Your task to perform on an android device: set default search engine in the chrome app Image 0: 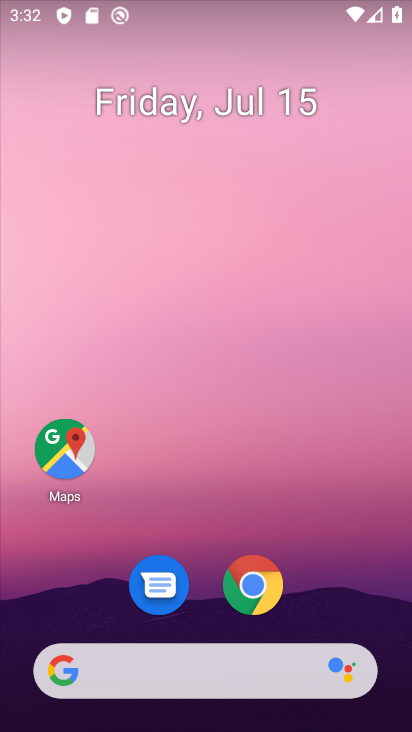
Step 0: click (260, 585)
Your task to perform on an android device: set default search engine in the chrome app Image 1: 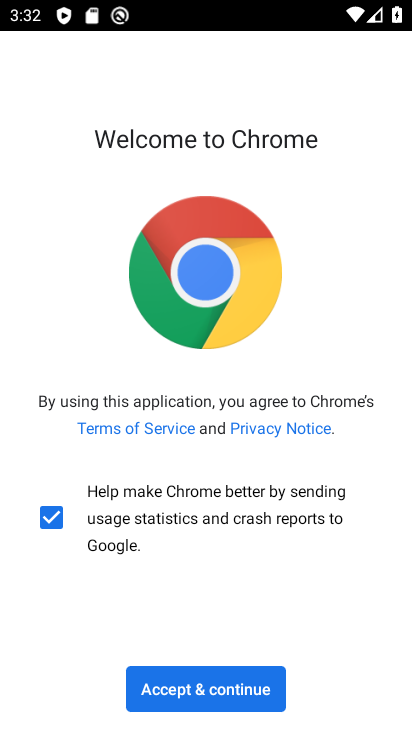
Step 1: click (242, 683)
Your task to perform on an android device: set default search engine in the chrome app Image 2: 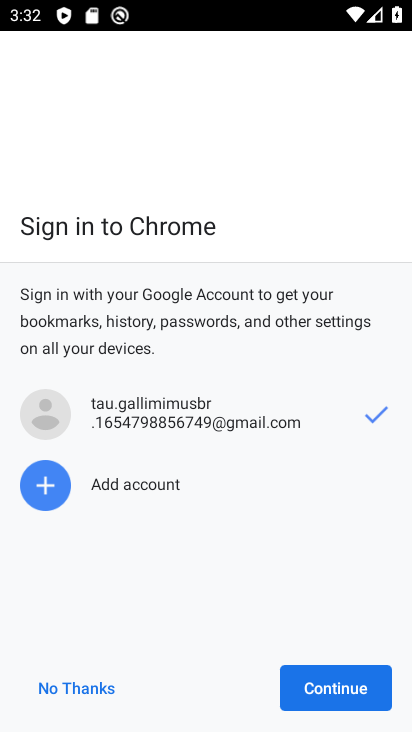
Step 2: click (319, 700)
Your task to perform on an android device: set default search engine in the chrome app Image 3: 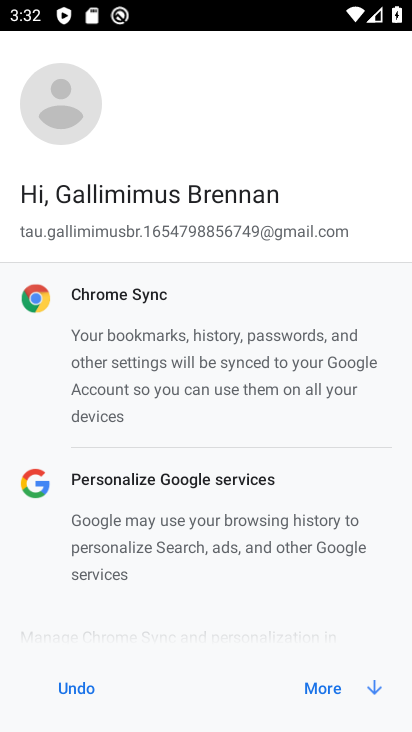
Step 3: click (325, 679)
Your task to perform on an android device: set default search engine in the chrome app Image 4: 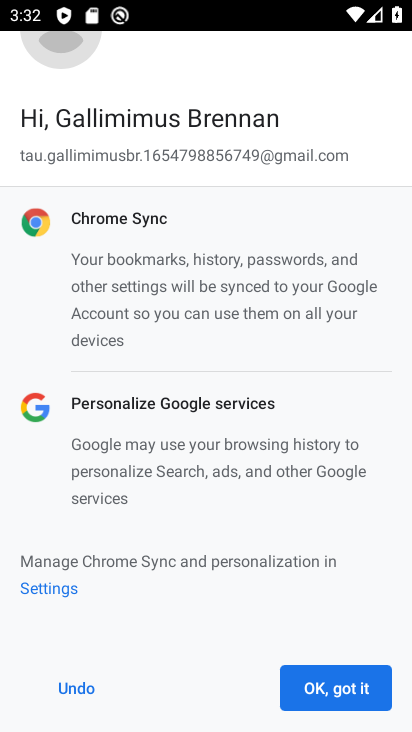
Step 4: click (325, 679)
Your task to perform on an android device: set default search engine in the chrome app Image 5: 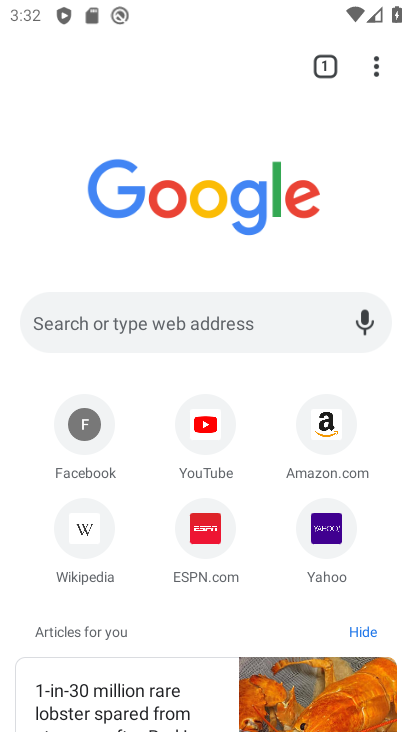
Step 5: click (374, 73)
Your task to perform on an android device: set default search engine in the chrome app Image 6: 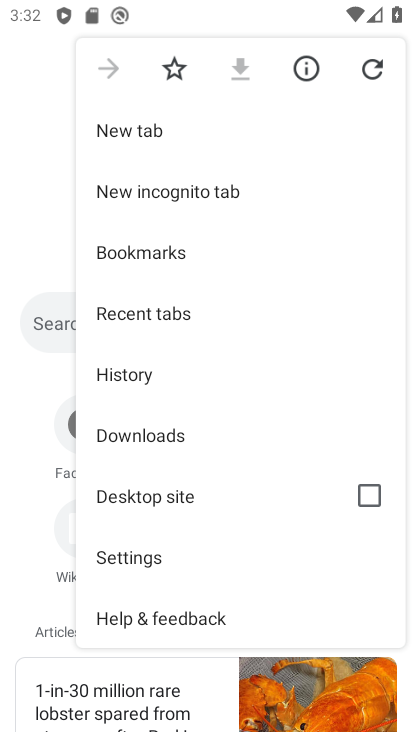
Step 6: click (142, 558)
Your task to perform on an android device: set default search engine in the chrome app Image 7: 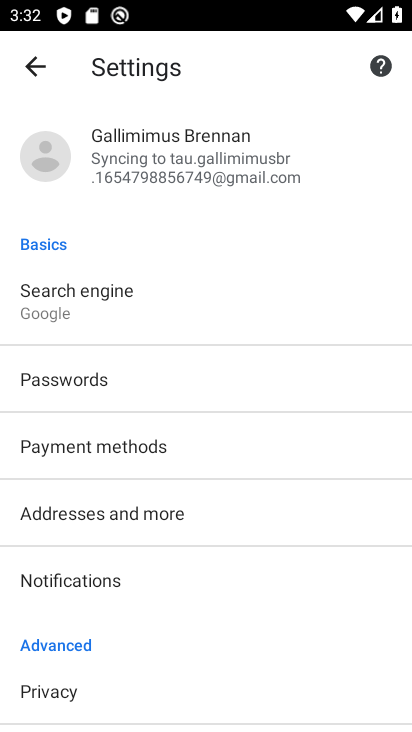
Step 7: click (97, 294)
Your task to perform on an android device: set default search engine in the chrome app Image 8: 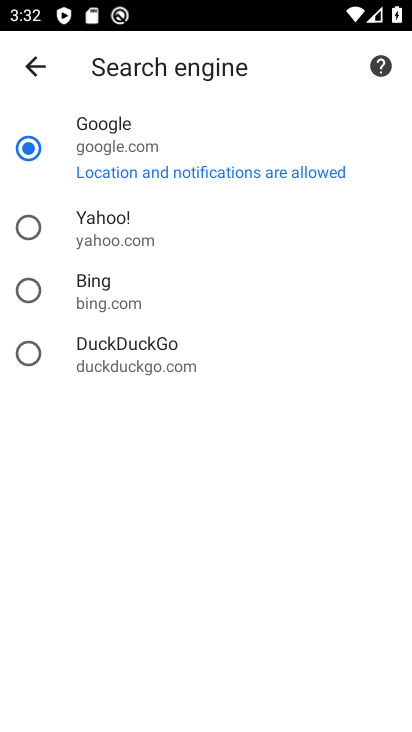
Step 8: task complete